Your task to perform on an android device: When is my next meeting? Image 0: 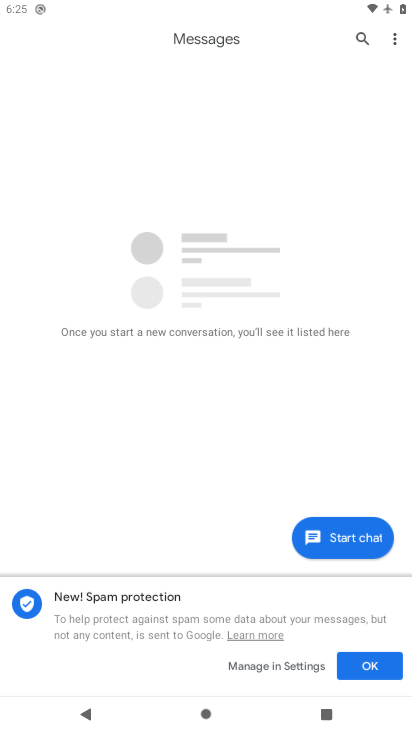
Step 0: press home button
Your task to perform on an android device: When is my next meeting? Image 1: 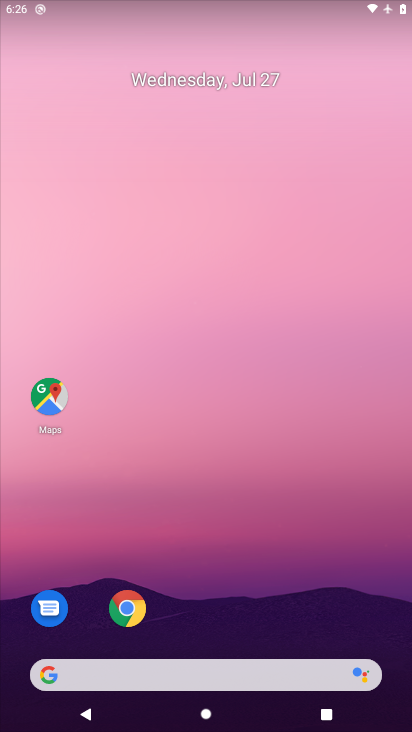
Step 1: drag from (188, 624) to (156, 151)
Your task to perform on an android device: When is my next meeting? Image 2: 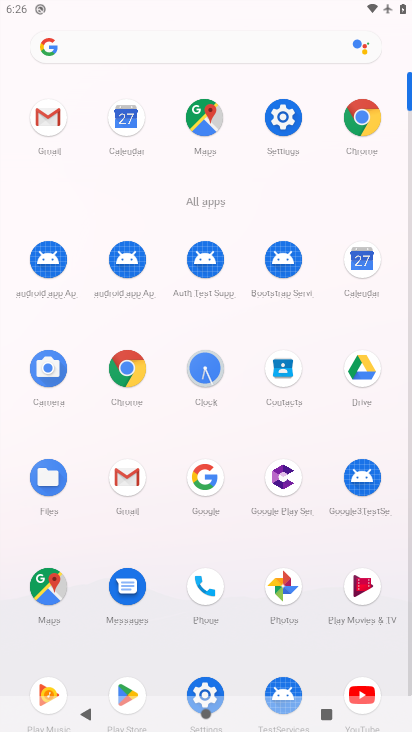
Step 2: click (360, 271)
Your task to perform on an android device: When is my next meeting? Image 3: 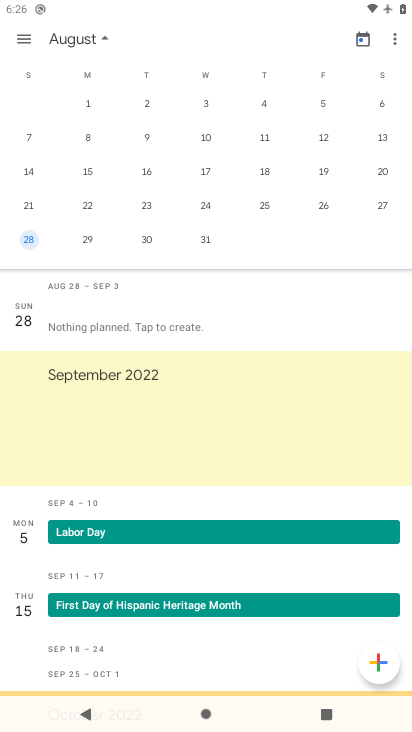
Step 3: click (23, 45)
Your task to perform on an android device: When is my next meeting? Image 4: 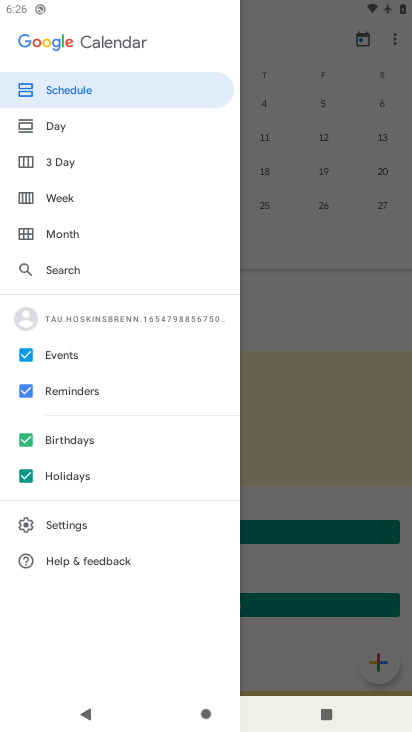
Step 4: click (48, 88)
Your task to perform on an android device: When is my next meeting? Image 5: 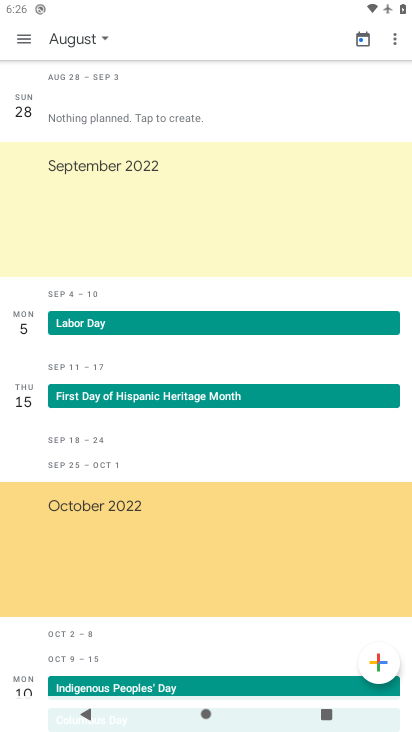
Step 5: task complete